Your task to perform on an android device: delete browsing data in the chrome app Image 0: 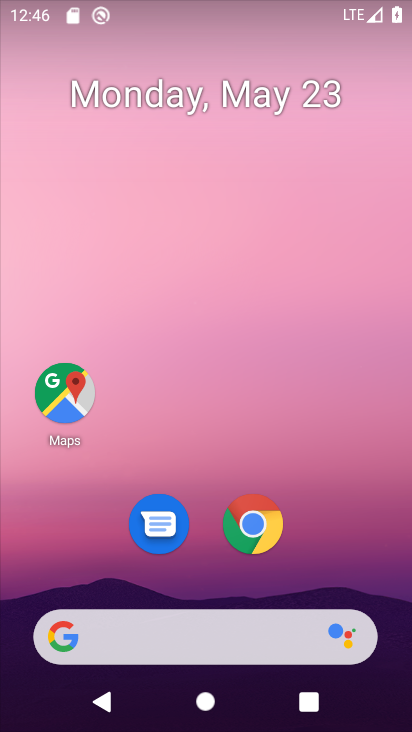
Step 0: click (254, 529)
Your task to perform on an android device: delete browsing data in the chrome app Image 1: 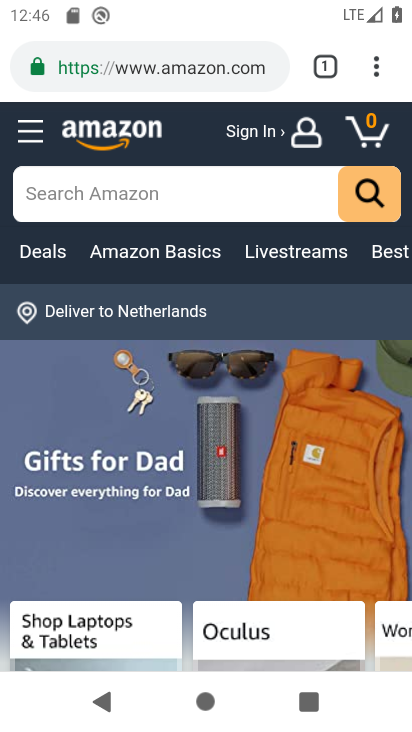
Step 1: click (368, 67)
Your task to perform on an android device: delete browsing data in the chrome app Image 2: 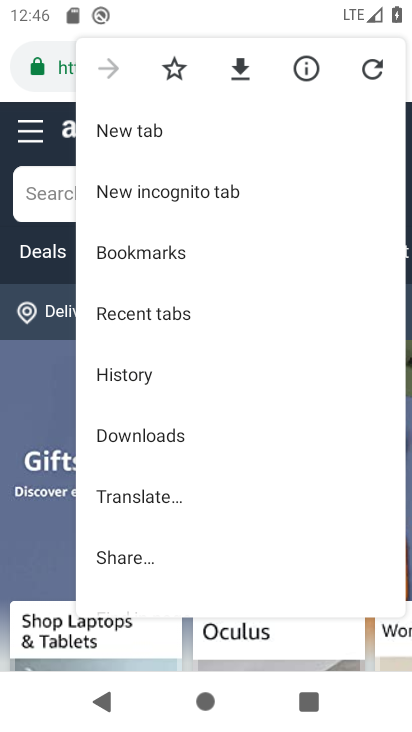
Step 2: click (139, 378)
Your task to perform on an android device: delete browsing data in the chrome app Image 3: 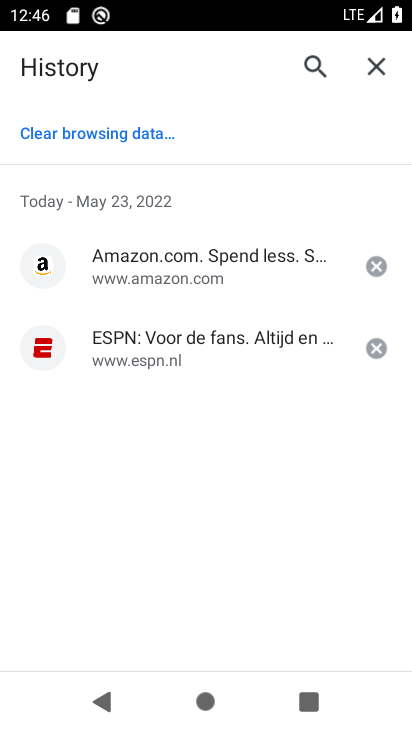
Step 3: click (120, 126)
Your task to perform on an android device: delete browsing data in the chrome app Image 4: 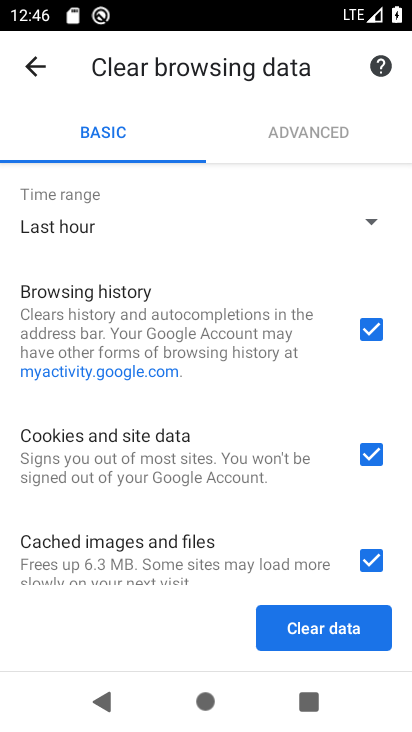
Step 4: click (355, 632)
Your task to perform on an android device: delete browsing data in the chrome app Image 5: 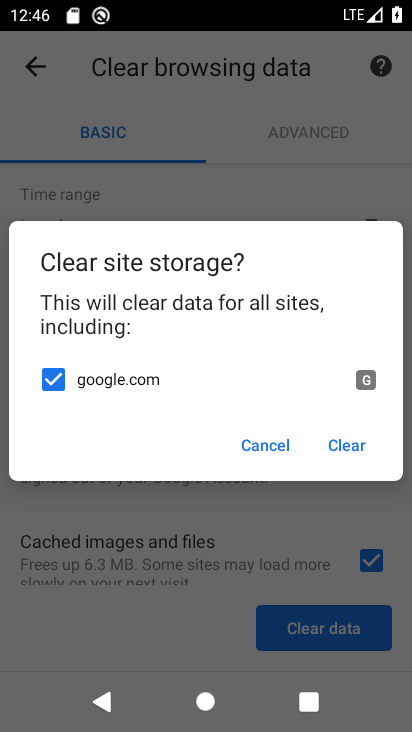
Step 5: click (358, 435)
Your task to perform on an android device: delete browsing data in the chrome app Image 6: 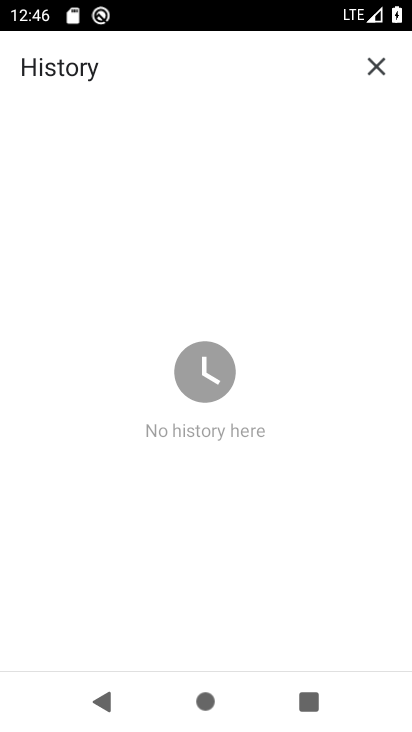
Step 6: task complete